Your task to perform on an android device: turn on wifi Image 0: 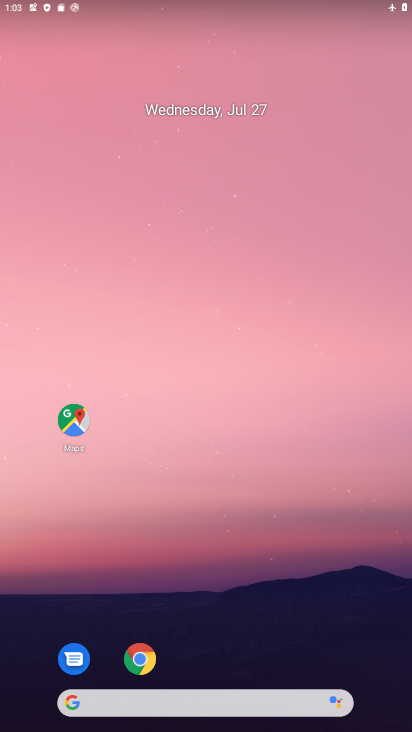
Step 0: drag from (221, 637) to (223, 46)
Your task to perform on an android device: turn on wifi Image 1: 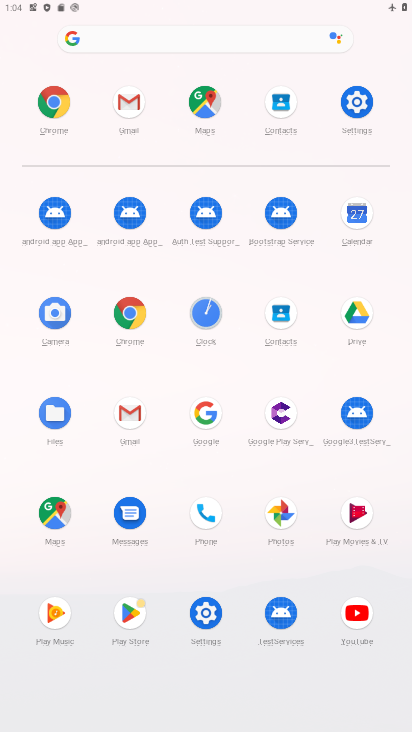
Step 1: click (368, 110)
Your task to perform on an android device: turn on wifi Image 2: 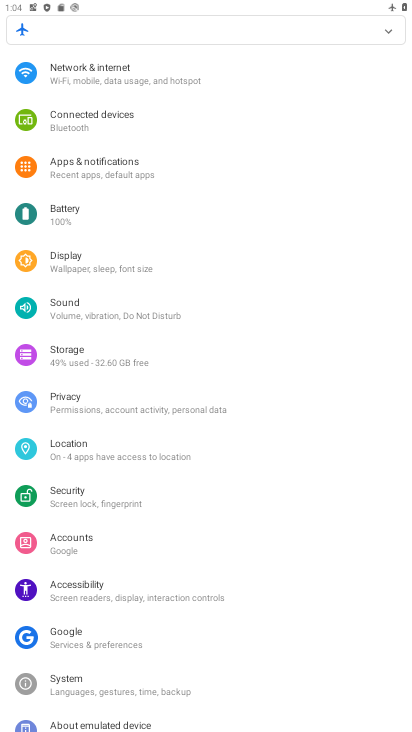
Step 2: click (164, 76)
Your task to perform on an android device: turn on wifi Image 3: 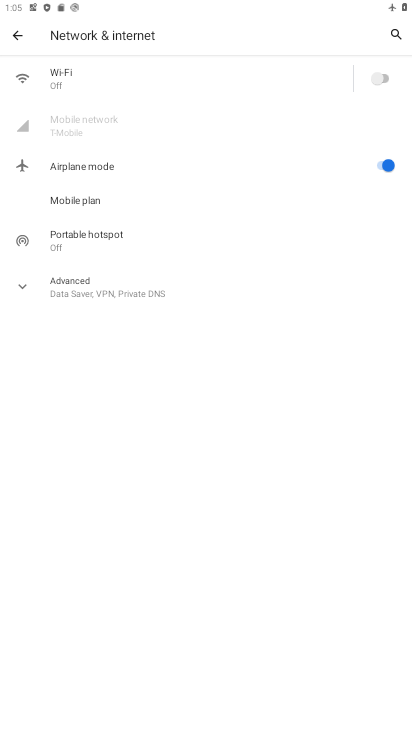
Step 3: click (378, 82)
Your task to perform on an android device: turn on wifi Image 4: 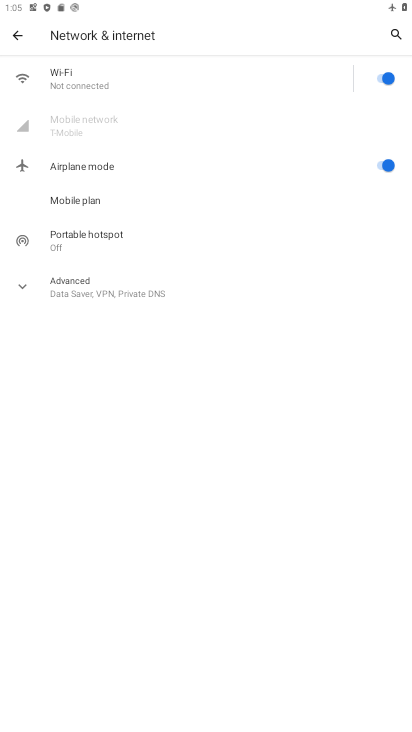
Step 4: task complete